Your task to perform on an android device: turn vacation reply on in the gmail app Image 0: 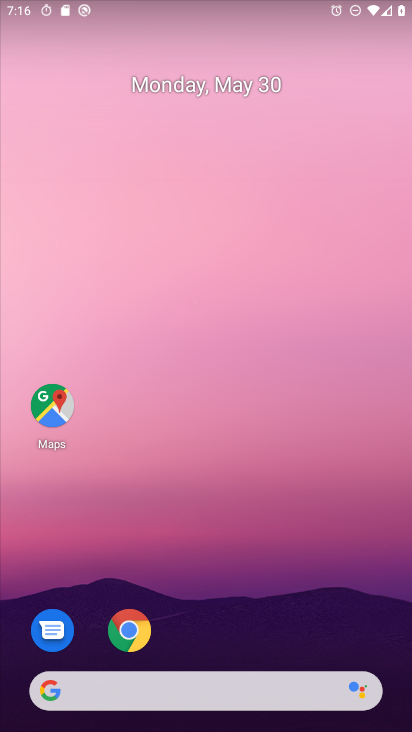
Step 0: drag from (373, 626) to (312, 56)
Your task to perform on an android device: turn vacation reply on in the gmail app Image 1: 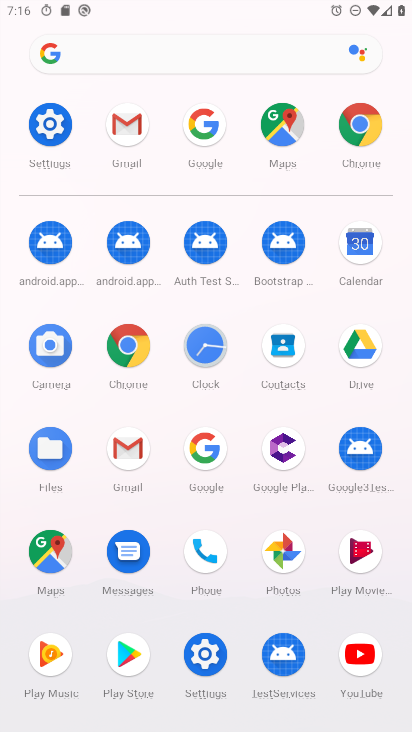
Step 1: click (127, 125)
Your task to perform on an android device: turn vacation reply on in the gmail app Image 2: 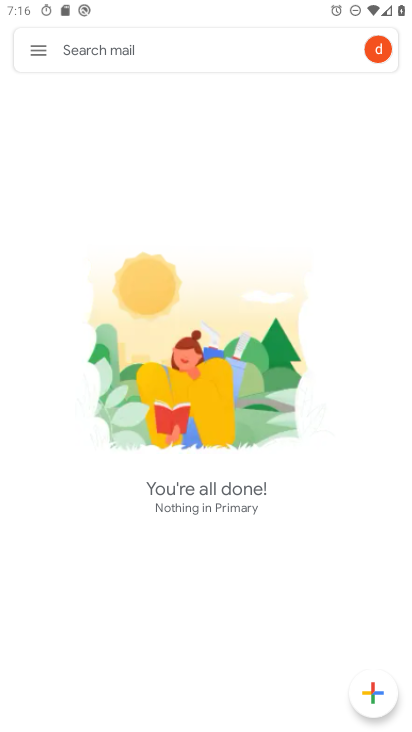
Step 2: click (39, 45)
Your task to perform on an android device: turn vacation reply on in the gmail app Image 3: 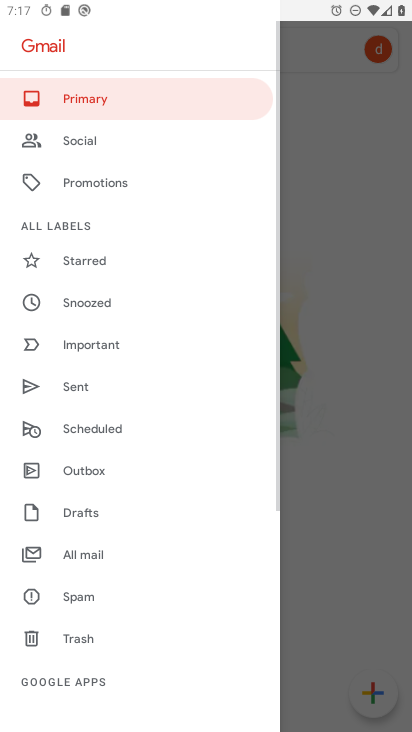
Step 3: drag from (86, 639) to (204, 8)
Your task to perform on an android device: turn vacation reply on in the gmail app Image 4: 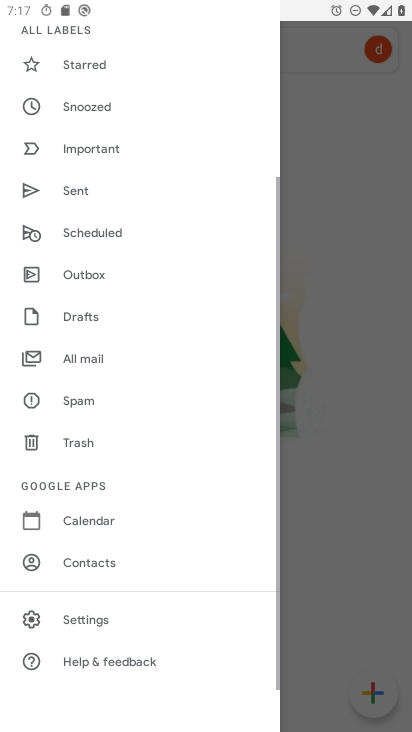
Step 4: click (76, 627)
Your task to perform on an android device: turn vacation reply on in the gmail app Image 5: 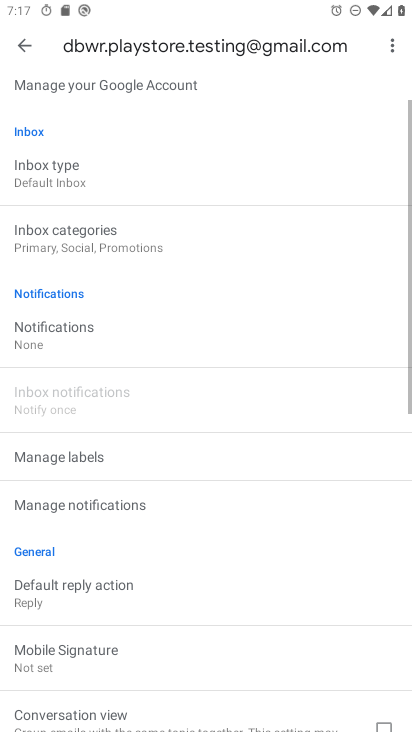
Step 5: drag from (81, 629) to (215, 9)
Your task to perform on an android device: turn vacation reply on in the gmail app Image 6: 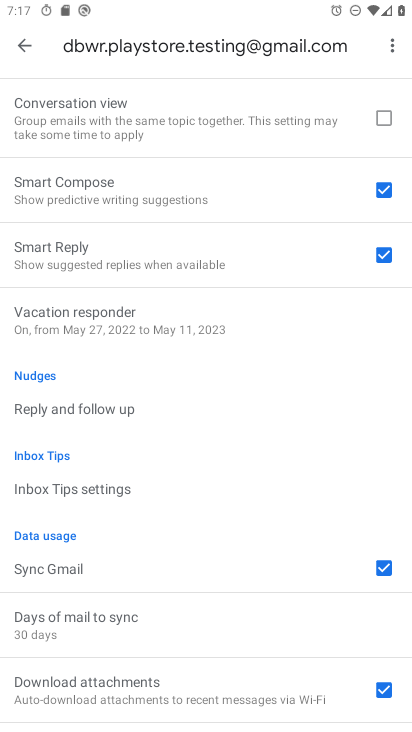
Step 6: click (92, 346)
Your task to perform on an android device: turn vacation reply on in the gmail app Image 7: 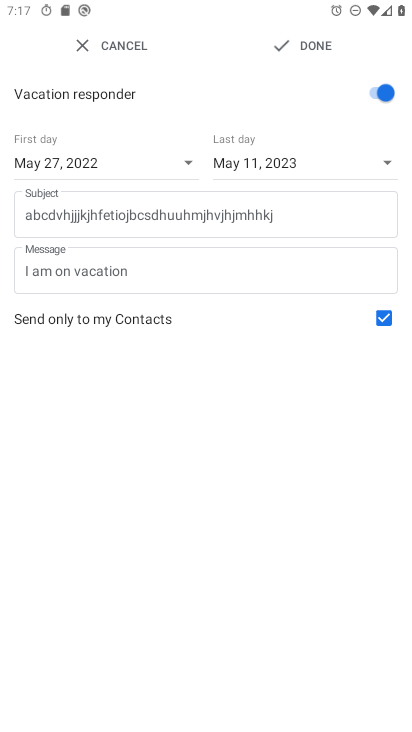
Step 7: task complete